Your task to perform on an android device: stop showing notifications on the lock screen Image 0: 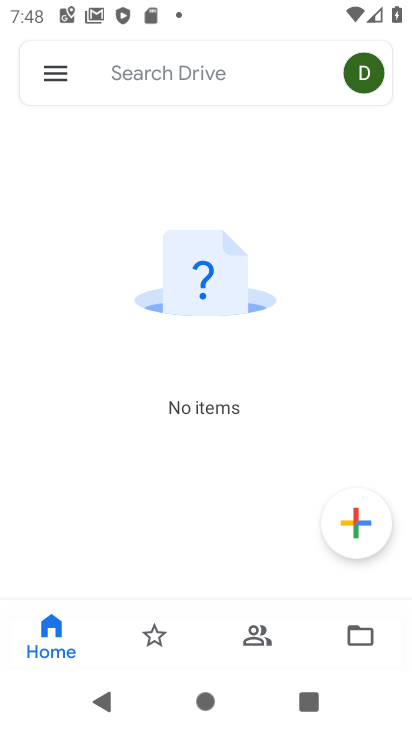
Step 0: press home button
Your task to perform on an android device: stop showing notifications on the lock screen Image 1: 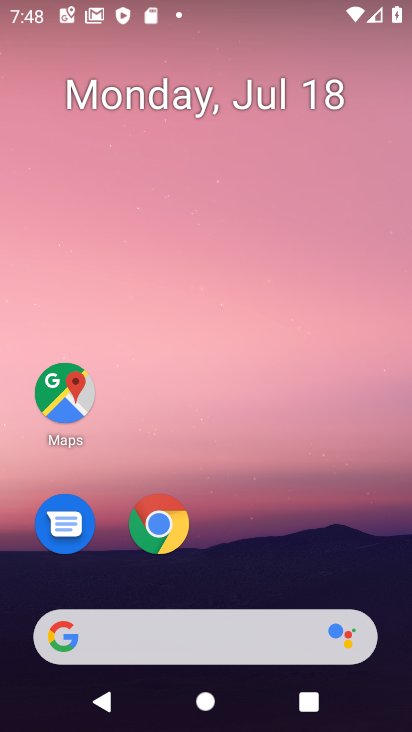
Step 1: drag from (323, 571) to (299, 40)
Your task to perform on an android device: stop showing notifications on the lock screen Image 2: 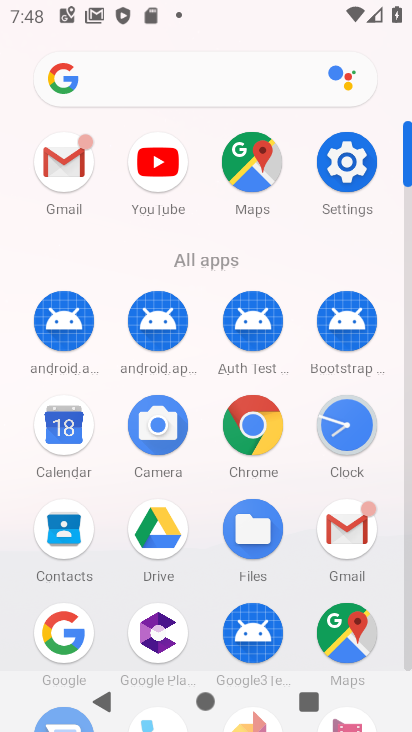
Step 2: click (362, 175)
Your task to perform on an android device: stop showing notifications on the lock screen Image 3: 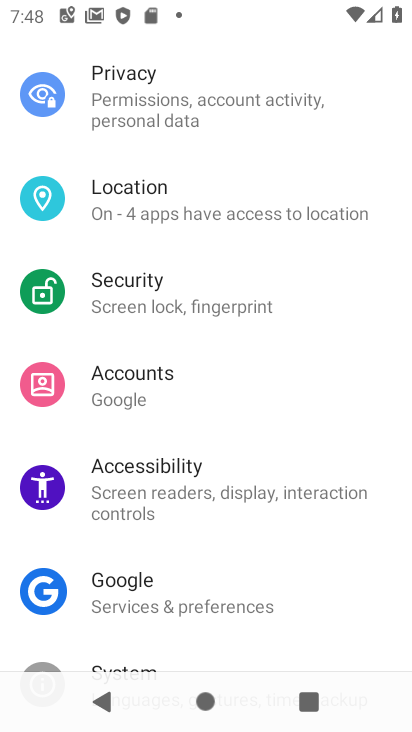
Step 3: drag from (231, 159) to (221, 665)
Your task to perform on an android device: stop showing notifications on the lock screen Image 4: 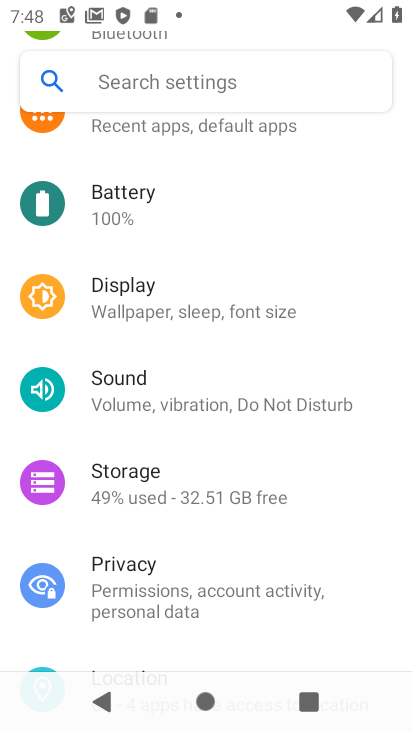
Step 4: drag from (205, 197) to (227, 565)
Your task to perform on an android device: stop showing notifications on the lock screen Image 5: 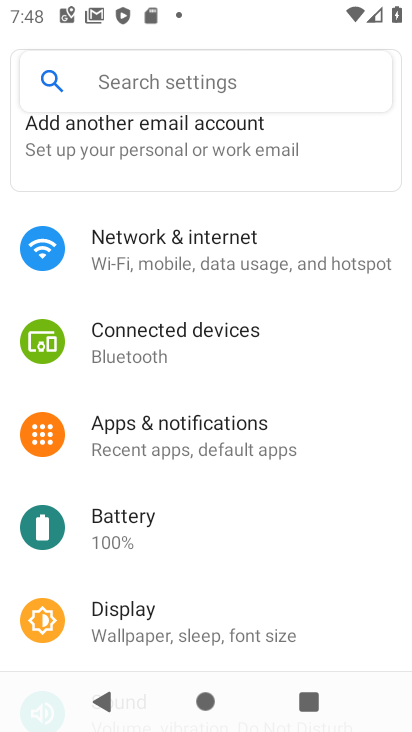
Step 5: click (227, 428)
Your task to perform on an android device: stop showing notifications on the lock screen Image 6: 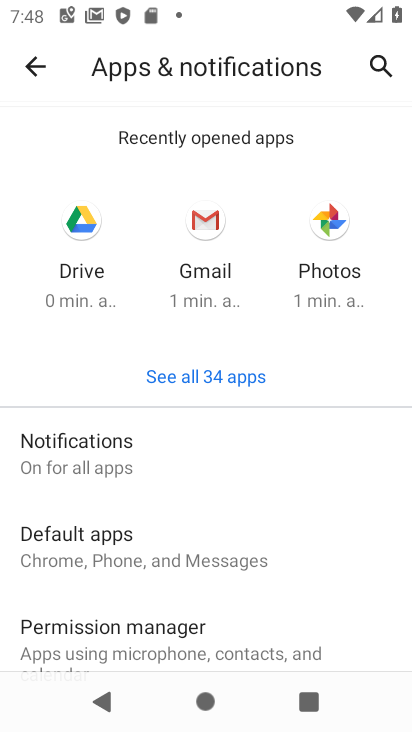
Step 6: click (98, 450)
Your task to perform on an android device: stop showing notifications on the lock screen Image 7: 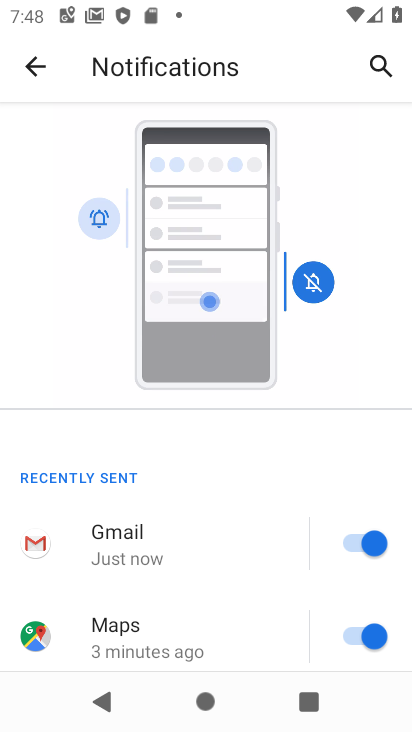
Step 7: drag from (216, 593) to (220, 75)
Your task to perform on an android device: stop showing notifications on the lock screen Image 8: 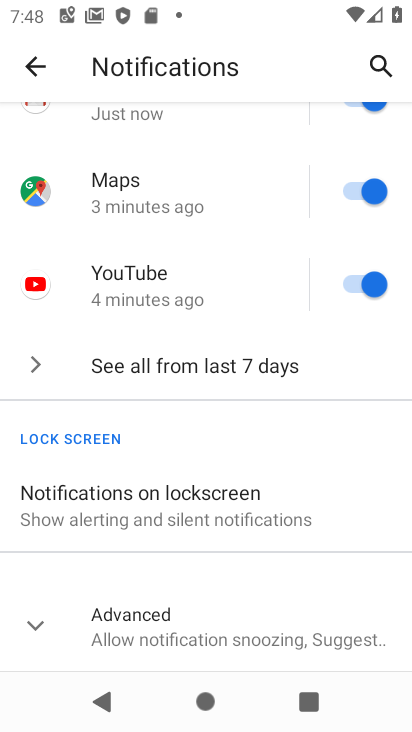
Step 8: click (34, 625)
Your task to perform on an android device: stop showing notifications on the lock screen Image 9: 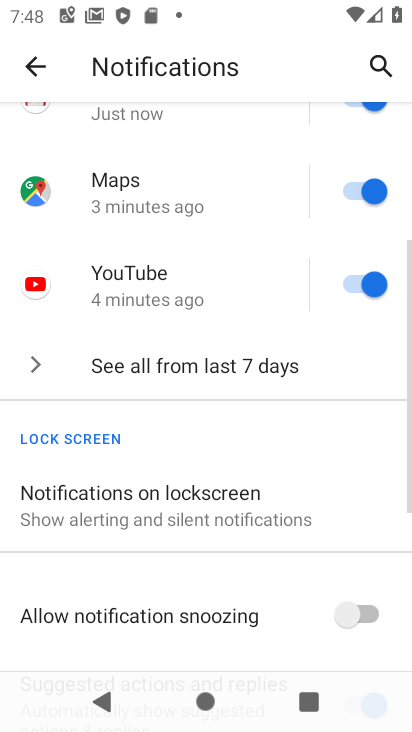
Step 9: drag from (190, 491) to (188, 134)
Your task to perform on an android device: stop showing notifications on the lock screen Image 10: 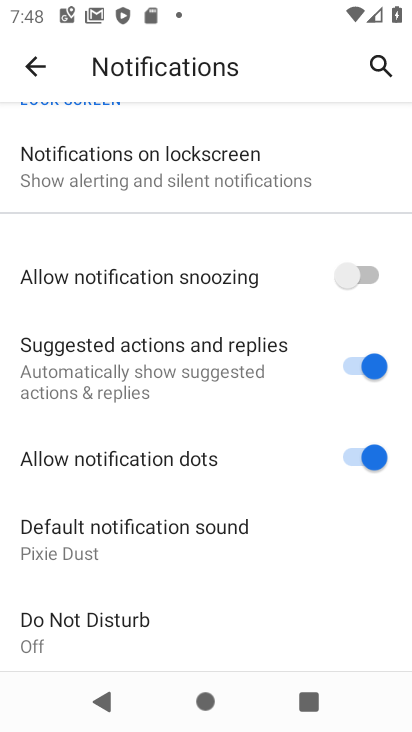
Step 10: click (357, 450)
Your task to perform on an android device: stop showing notifications on the lock screen Image 11: 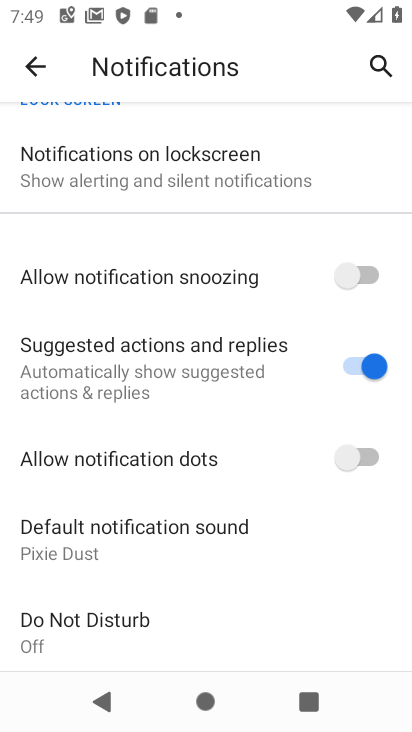
Step 11: task complete